Your task to perform on an android device: Toggle the flashlight Image 0: 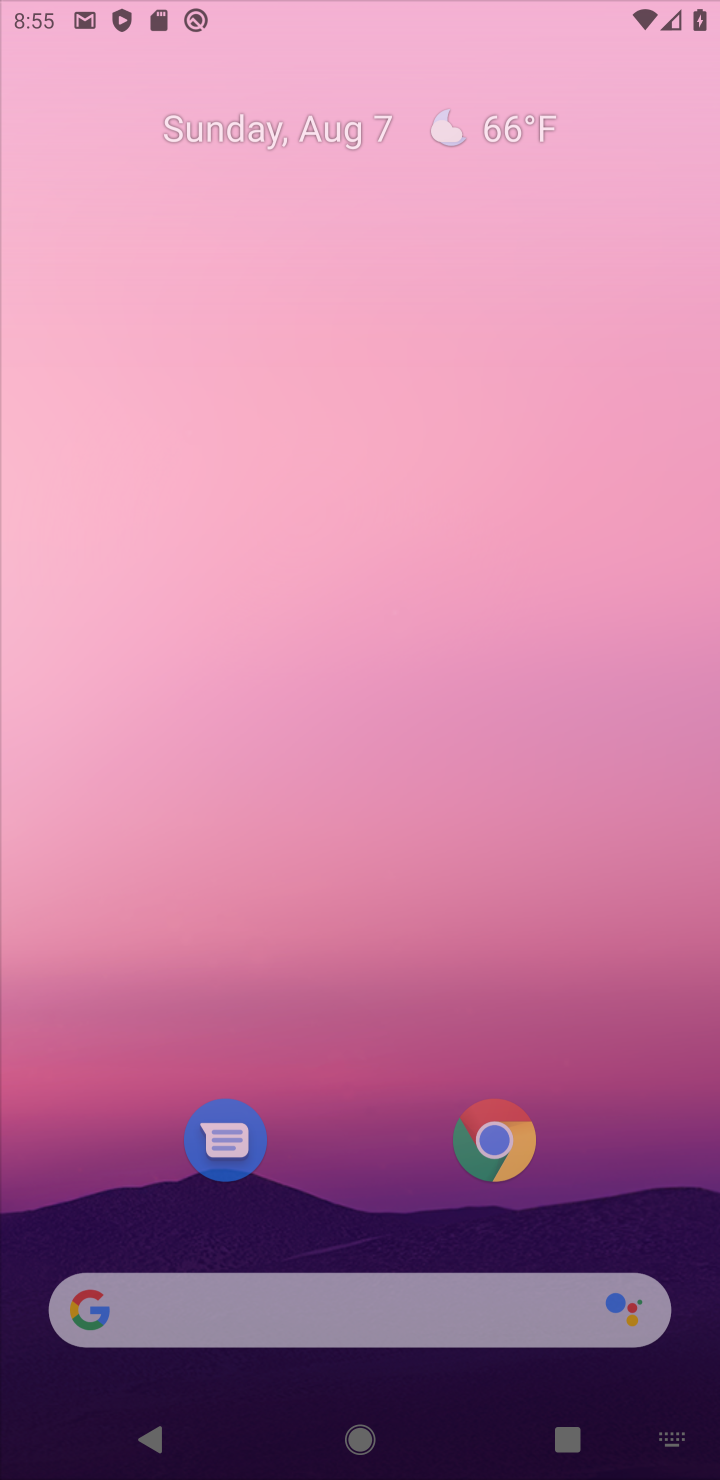
Step 0: press home button
Your task to perform on an android device: Toggle the flashlight Image 1: 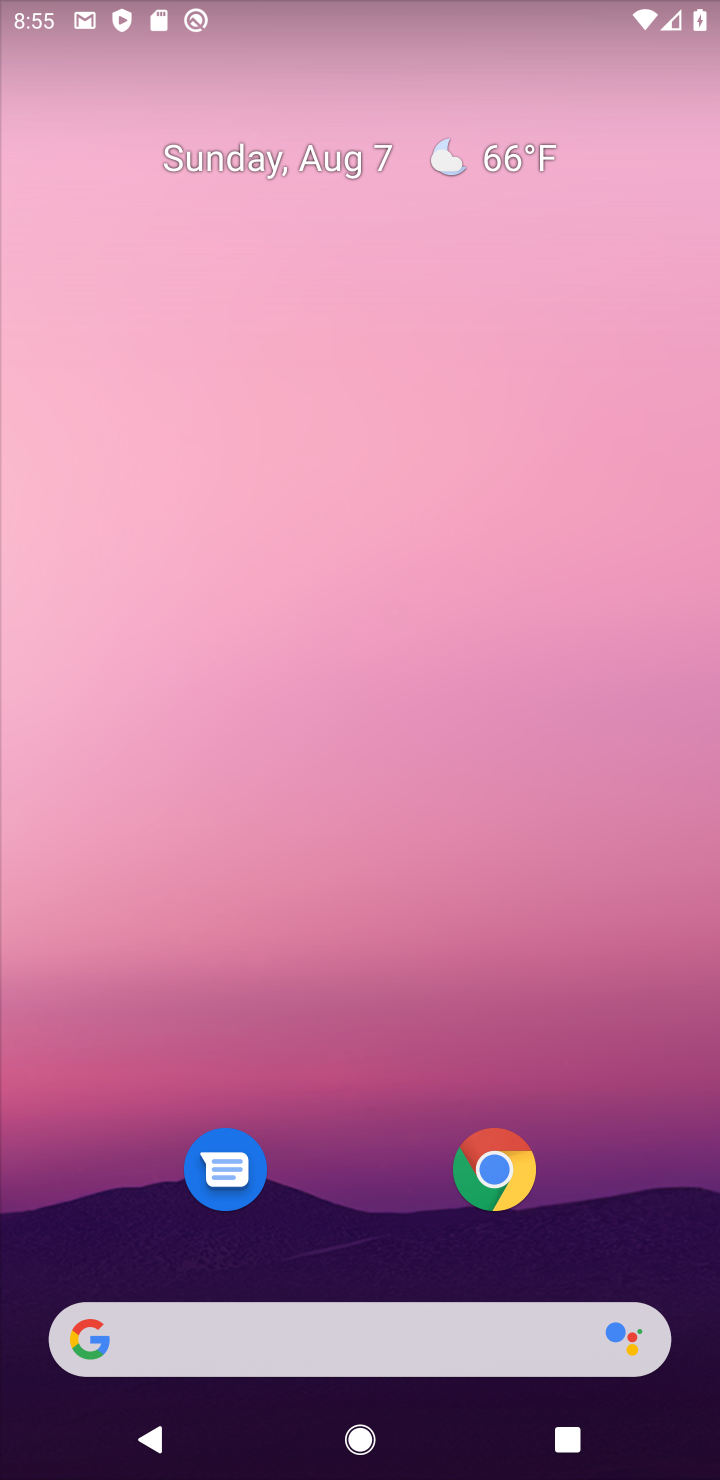
Step 1: press back button
Your task to perform on an android device: Toggle the flashlight Image 2: 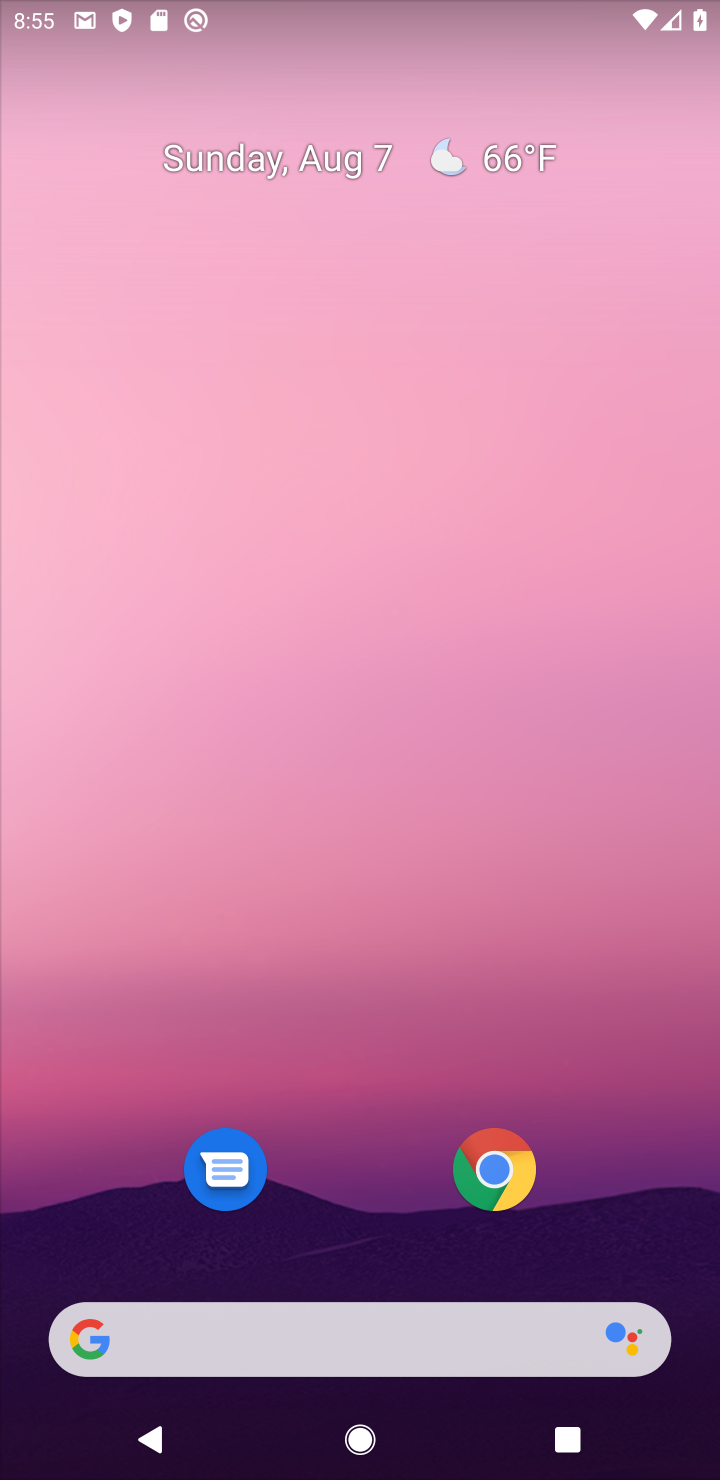
Step 2: click (143, 7)
Your task to perform on an android device: Toggle the flashlight Image 3: 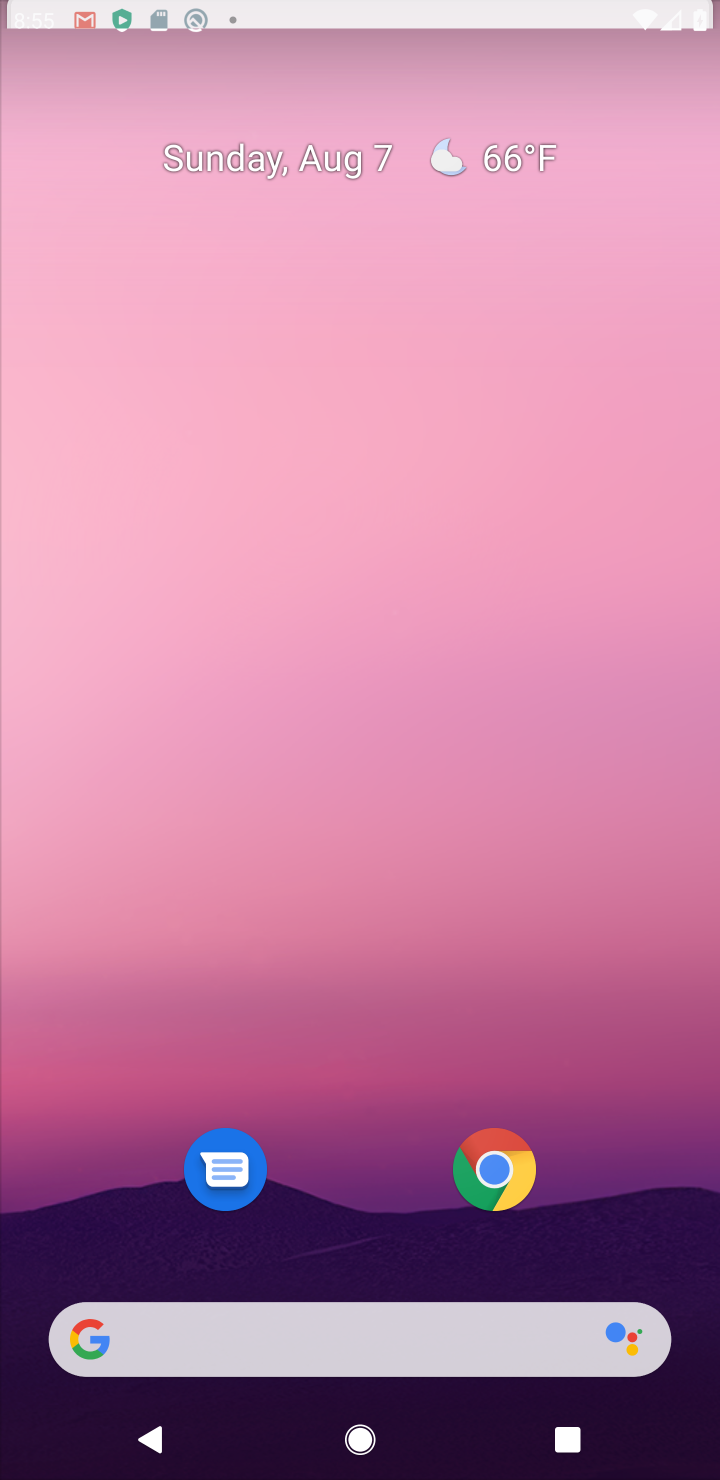
Step 3: drag from (349, 1301) to (262, 692)
Your task to perform on an android device: Toggle the flashlight Image 4: 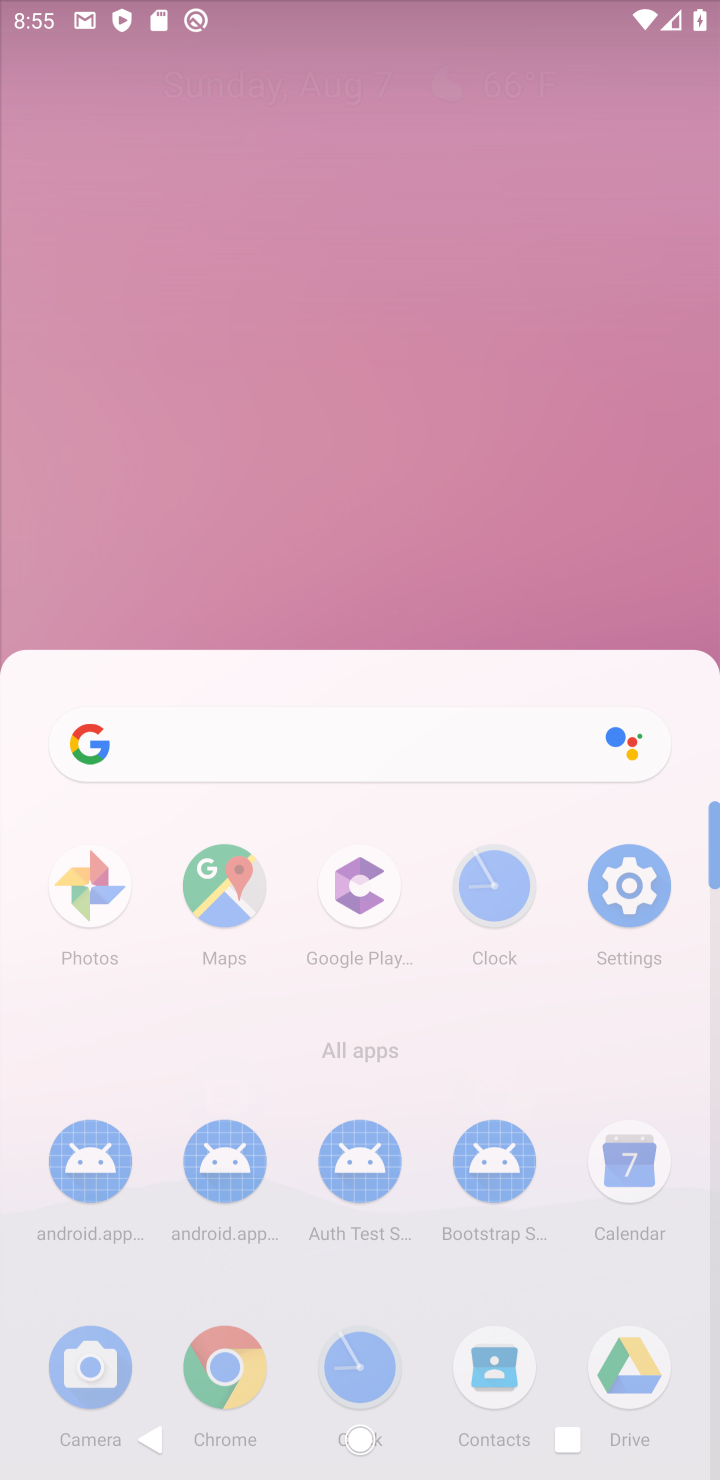
Step 4: drag from (383, 1273) to (250, 238)
Your task to perform on an android device: Toggle the flashlight Image 5: 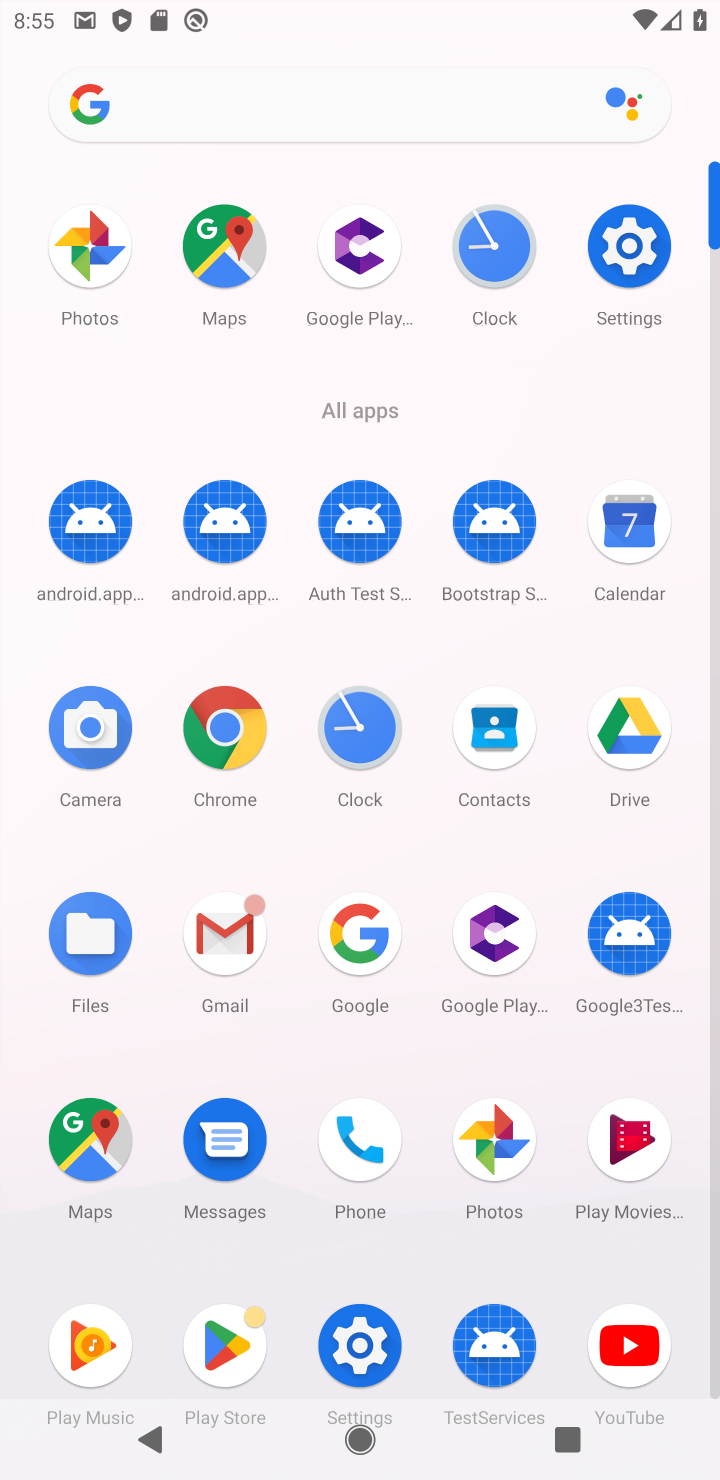
Step 5: click (611, 249)
Your task to perform on an android device: Toggle the flashlight Image 6: 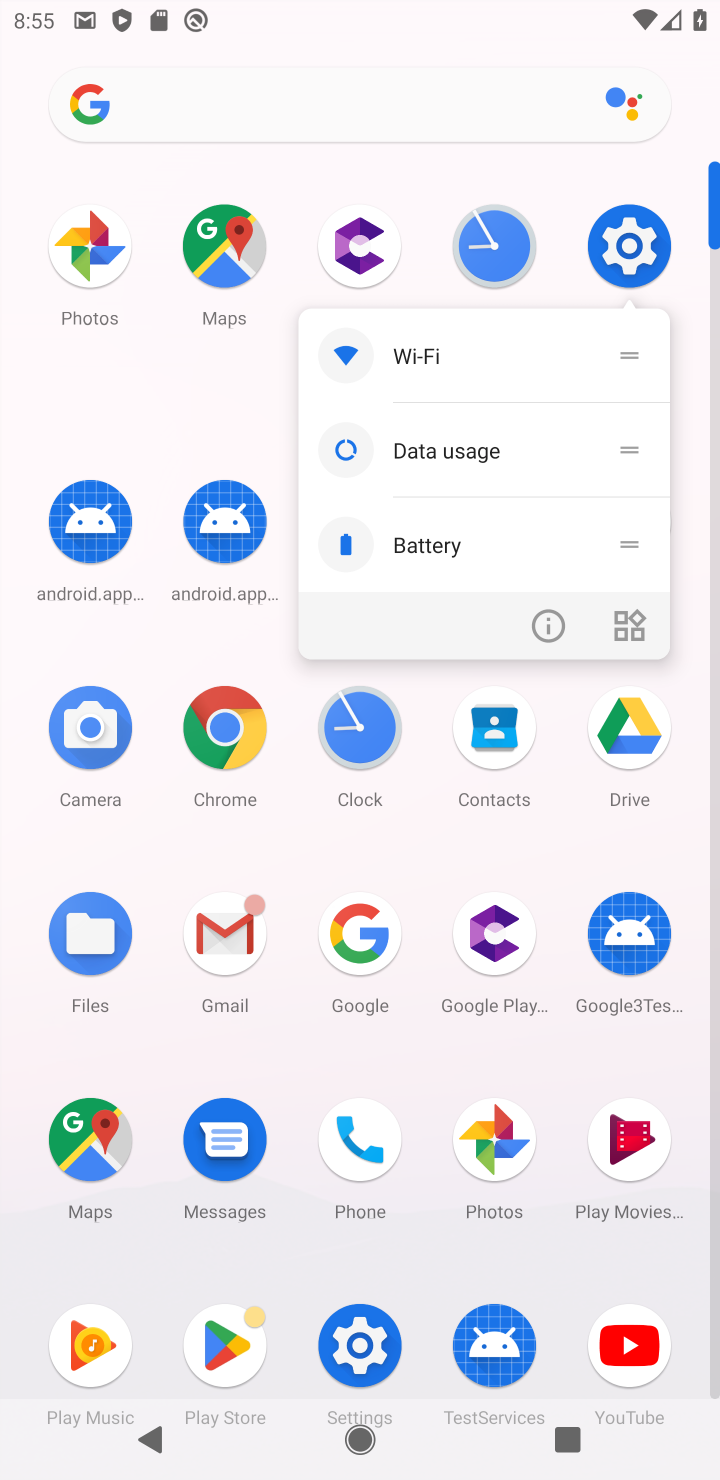
Step 6: click (611, 252)
Your task to perform on an android device: Toggle the flashlight Image 7: 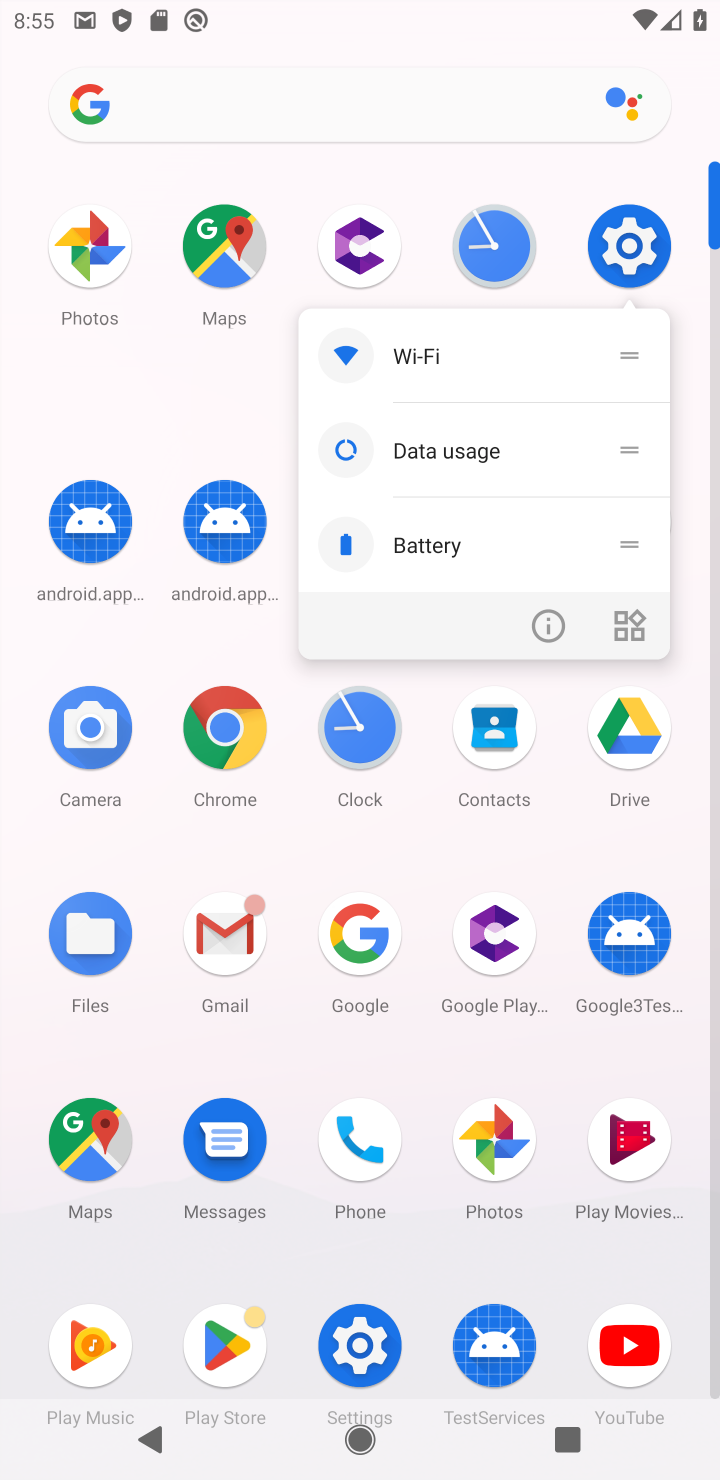
Step 7: click (666, 226)
Your task to perform on an android device: Toggle the flashlight Image 8: 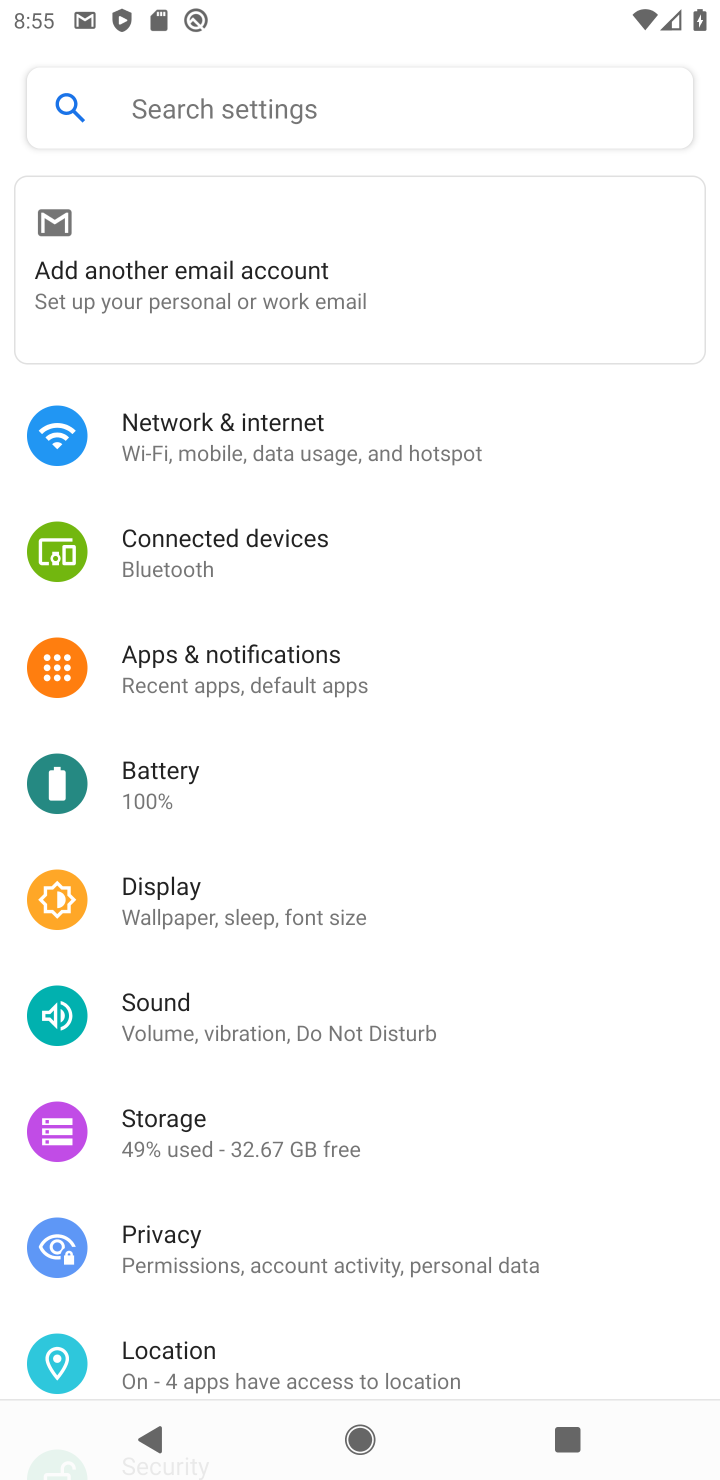
Step 8: task complete